Your task to perform on an android device: toggle priority inbox in the gmail app Image 0: 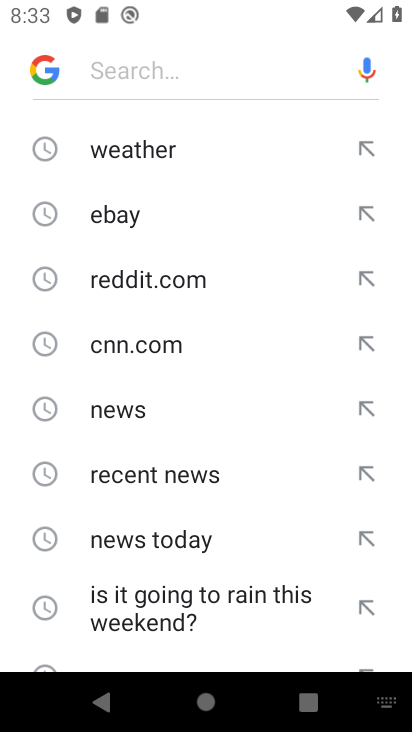
Step 0: press home button
Your task to perform on an android device: toggle priority inbox in the gmail app Image 1: 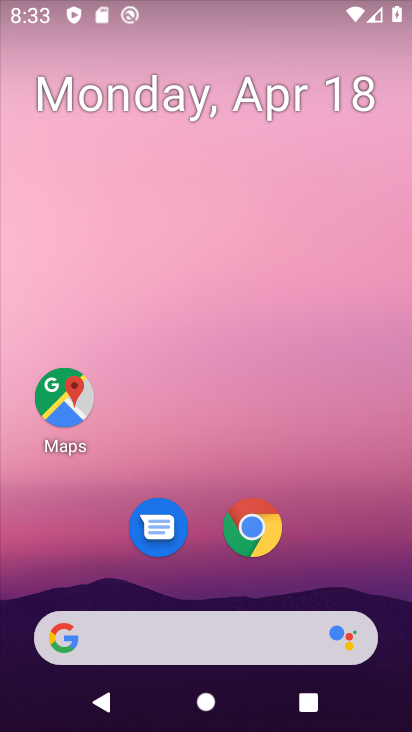
Step 1: drag from (341, 507) to (353, 100)
Your task to perform on an android device: toggle priority inbox in the gmail app Image 2: 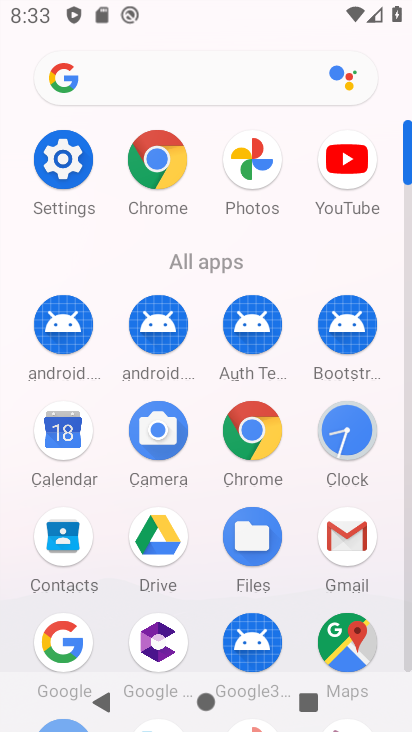
Step 2: click (351, 535)
Your task to perform on an android device: toggle priority inbox in the gmail app Image 3: 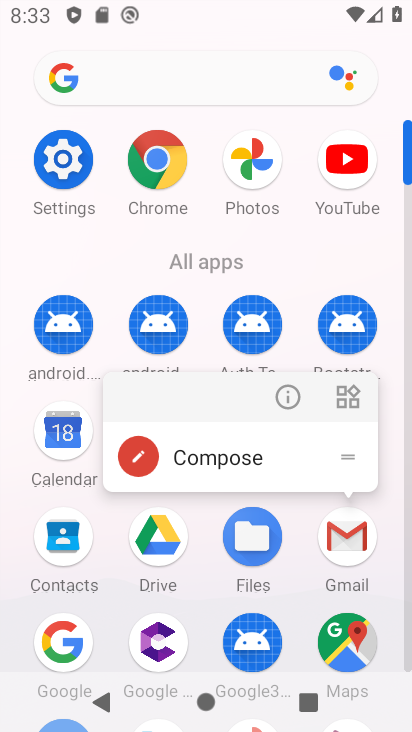
Step 3: click (351, 537)
Your task to perform on an android device: toggle priority inbox in the gmail app Image 4: 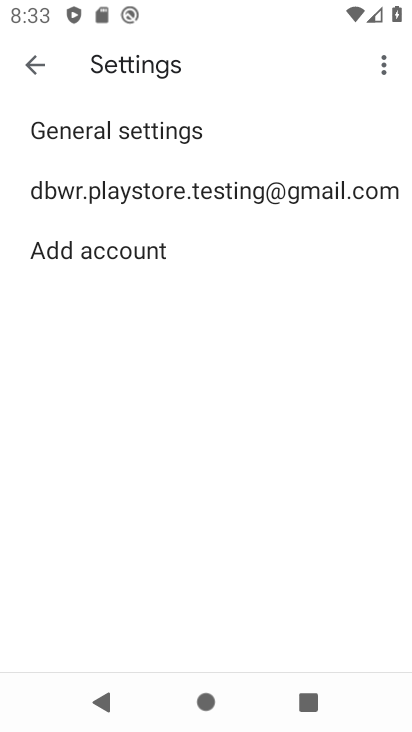
Step 4: click (38, 59)
Your task to perform on an android device: toggle priority inbox in the gmail app Image 5: 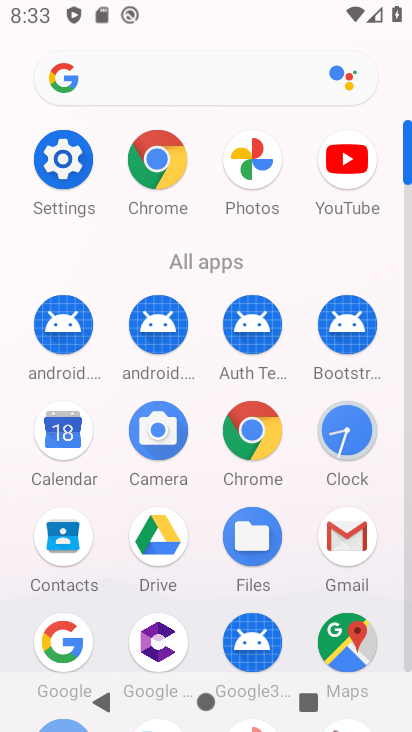
Step 5: click (358, 536)
Your task to perform on an android device: toggle priority inbox in the gmail app Image 6: 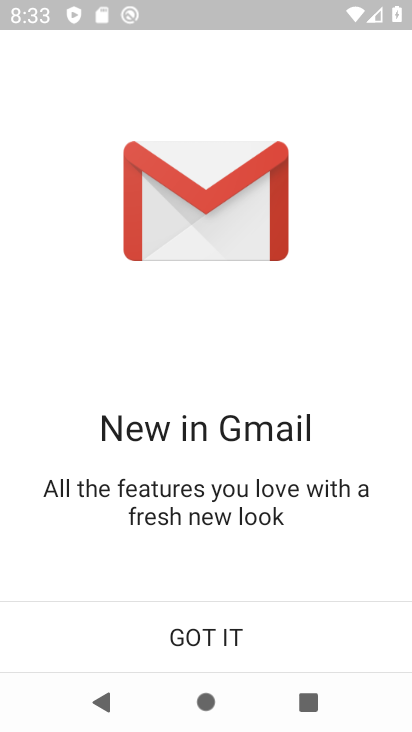
Step 6: click (182, 631)
Your task to perform on an android device: toggle priority inbox in the gmail app Image 7: 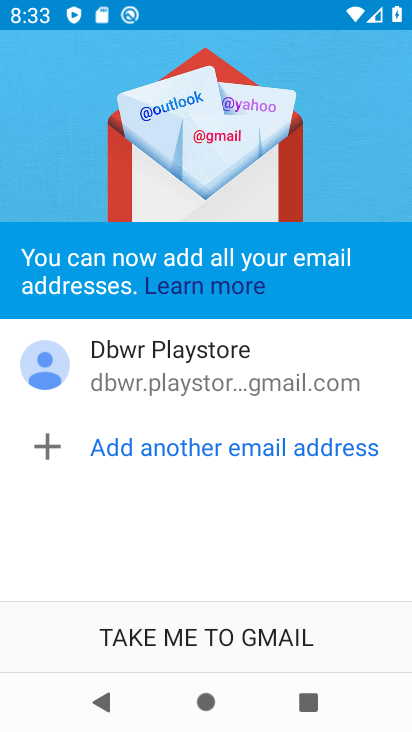
Step 7: click (182, 631)
Your task to perform on an android device: toggle priority inbox in the gmail app Image 8: 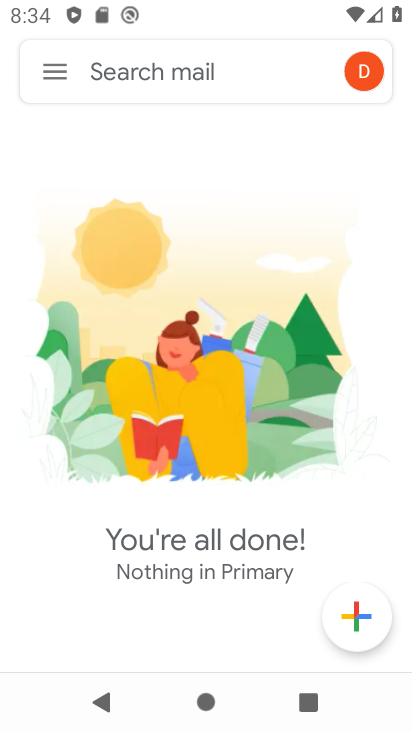
Step 8: click (57, 70)
Your task to perform on an android device: toggle priority inbox in the gmail app Image 9: 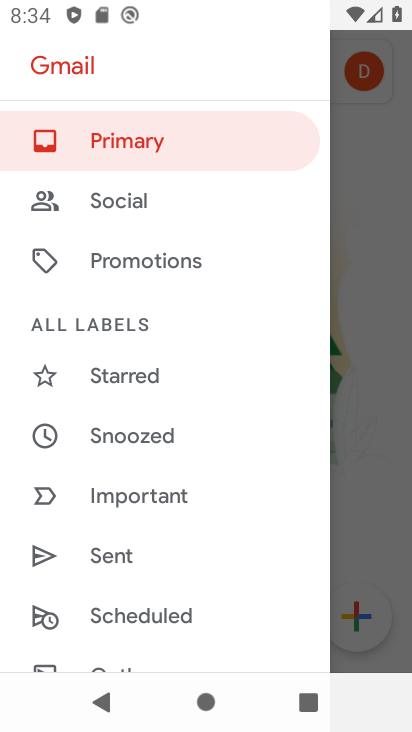
Step 9: drag from (253, 399) to (259, 66)
Your task to perform on an android device: toggle priority inbox in the gmail app Image 10: 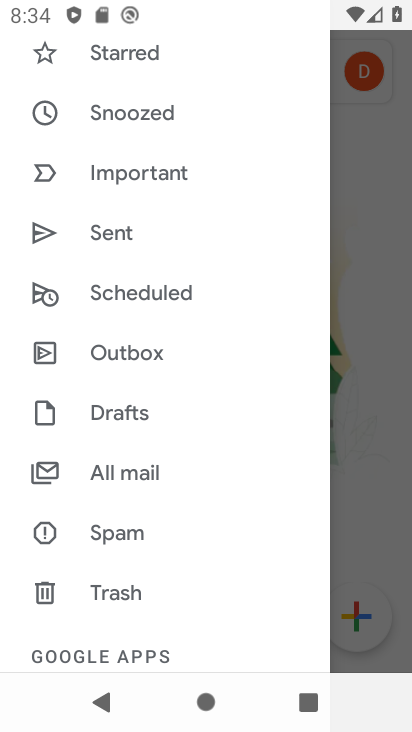
Step 10: drag from (224, 557) to (236, 63)
Your task to perform on an android device: toggle priority inbox in the gmail app Image 11: 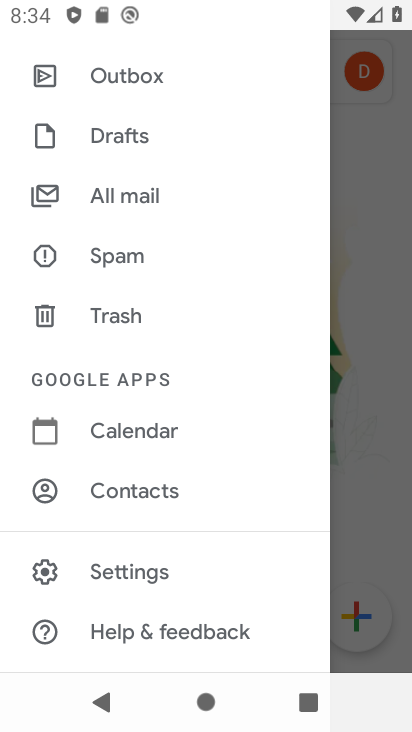
Step 11: click (117, 568)
Your task to perform on an android device: toggle priority inbox in the gmail app Image 12: 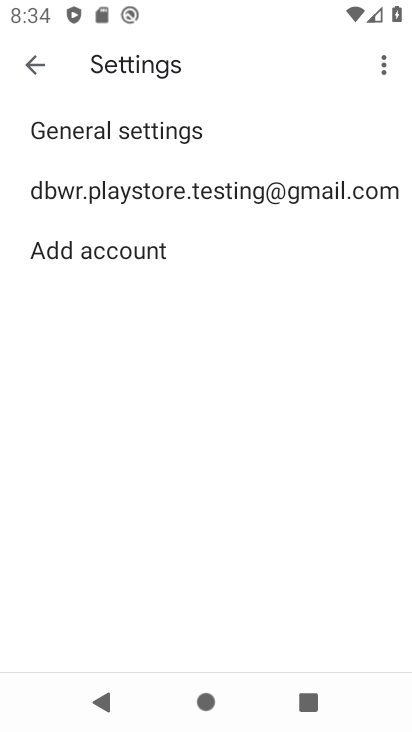
Step 12: click (226, 188)
Your task to perform on an android device: toggle priority inbox in the gmail app Image 13: 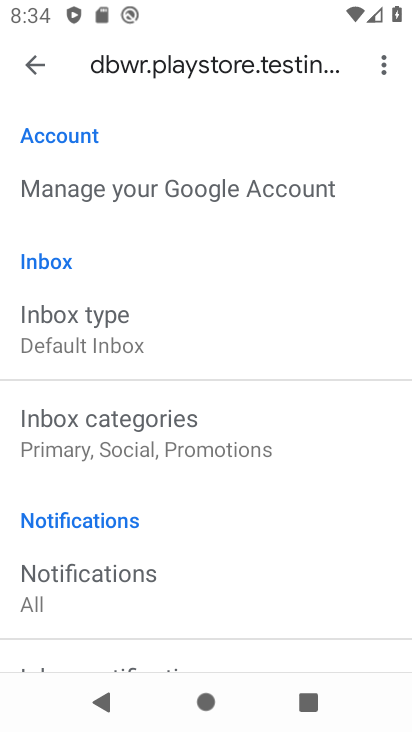
Step 13: click (87, 332)
Your task to perform on an android device: toggle priority inbox in the gmail app Image 14: 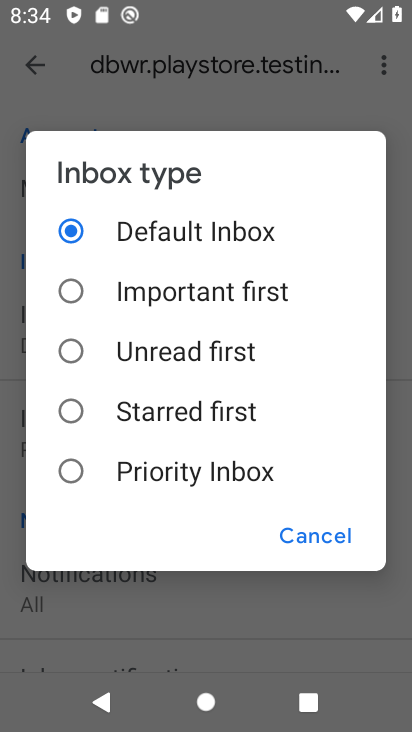
Step 14: click (198, 471)
Your task to perform on an android device: toggle priority inbox in the gmail app Image 15: 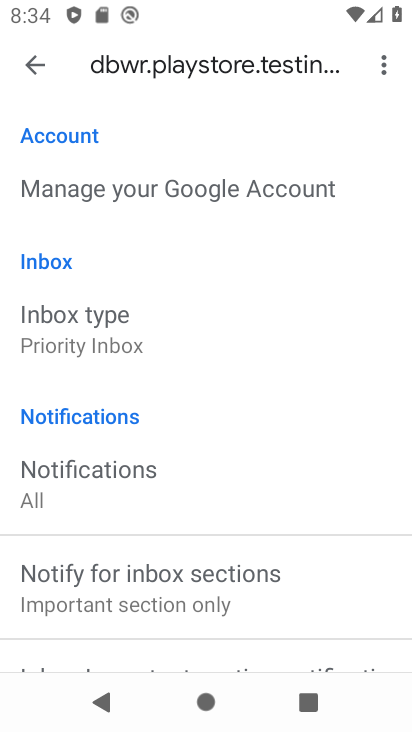
Step 15: task complete